Your task to perform on an android device: choose inbox layout in the gmail app Image 0: 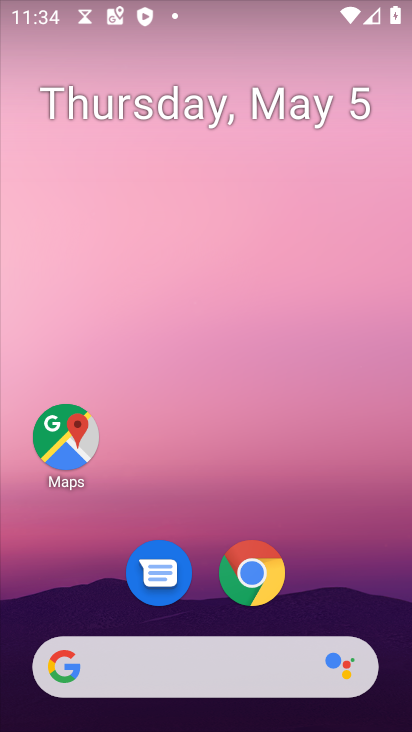
Step 0: drag from (342, 434) to (336, 291)
Your task to perform on an android device: choose inbox layout in the gmail app Image 1: 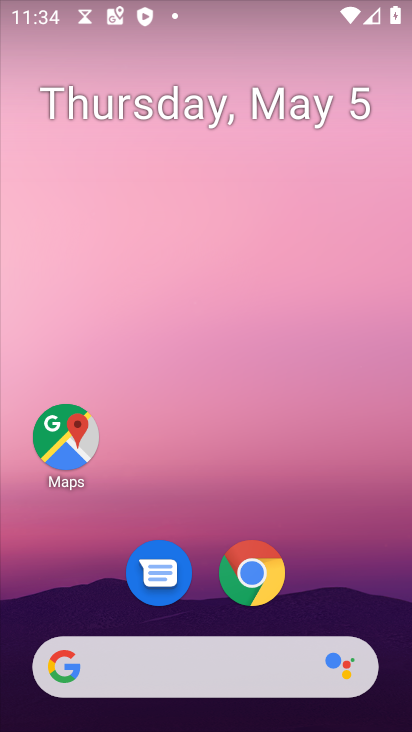
Step 1: drag from (346, 604) to (333, 179)
Your task to perform on an android device: choose inbox layout in the gmail app Image 2: 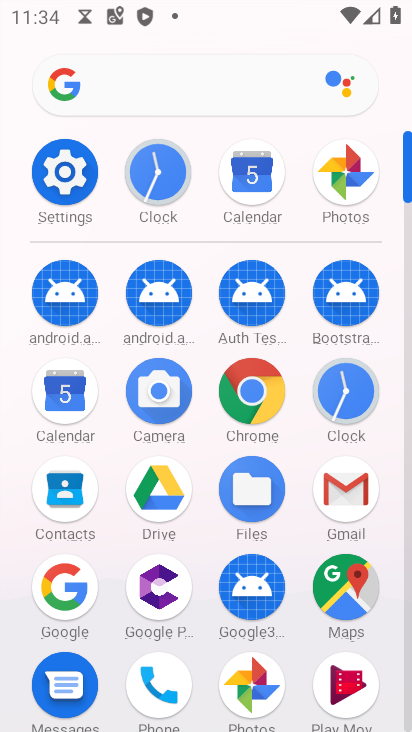
Step 2: click (343, 489)
Your task to perform on an android device: choose inbox layout in the gmail app Image 3: 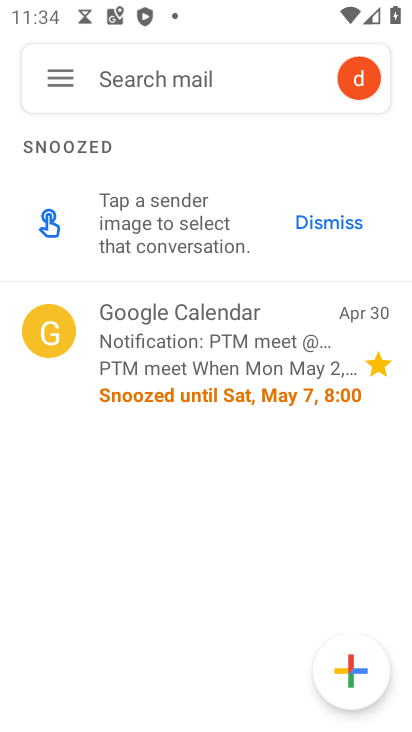
Step 3: click (52, 80)
Your task to perform on an android device: choose inbox layout in the gmail app Image 4: 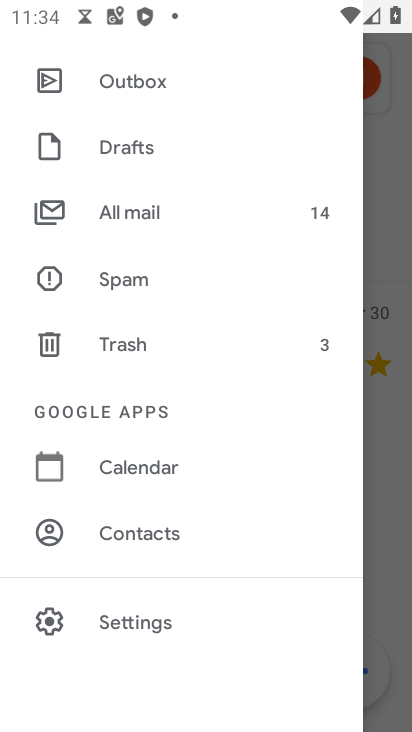
Step 4: click (146, 620)
Your task to perform on an android device: choose inbox layout in the gmail app Image 5: 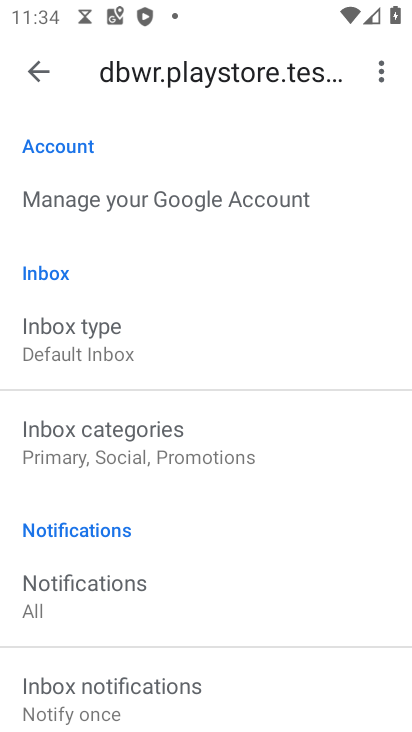
Step 5: click (99, 339)
Your task to perform on an android device: choose inbox layout in the gmail app Image 6: 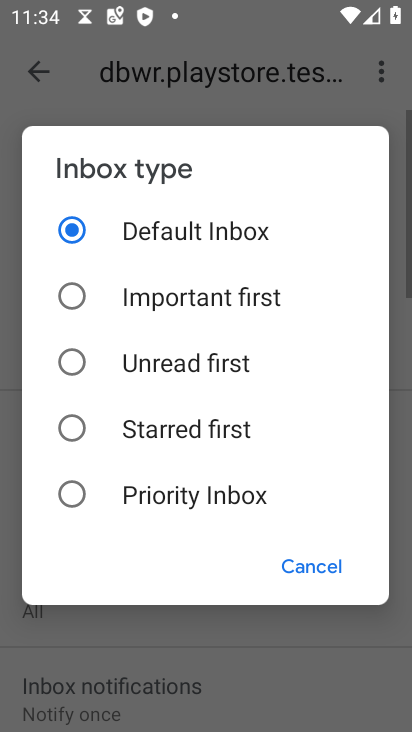
Step 6: click (116, 367)
Your task to perform on an android device: choose inbox layout in the gmail app Image 7: 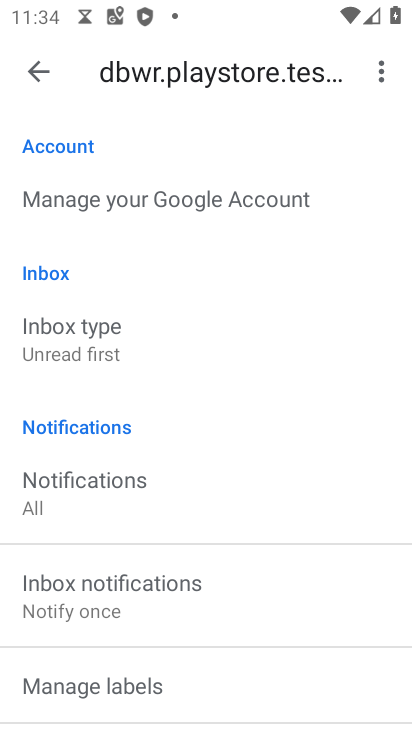
Step 7: task complete